Your task to perform on an android device: turn on location history Image 0: 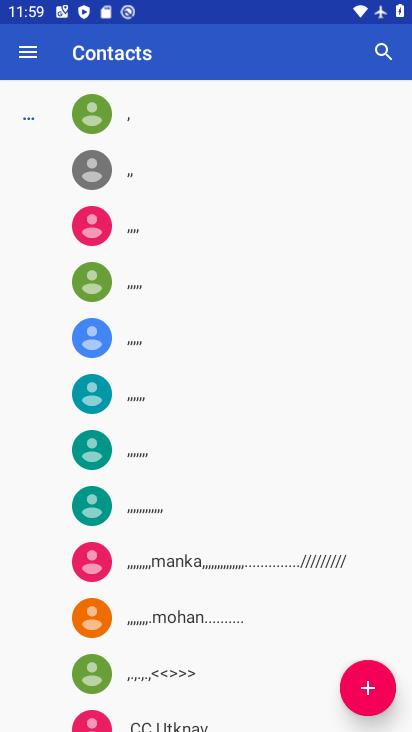
Step 0: press back button
Your task to perform on an android device: turn on location history Image 1: 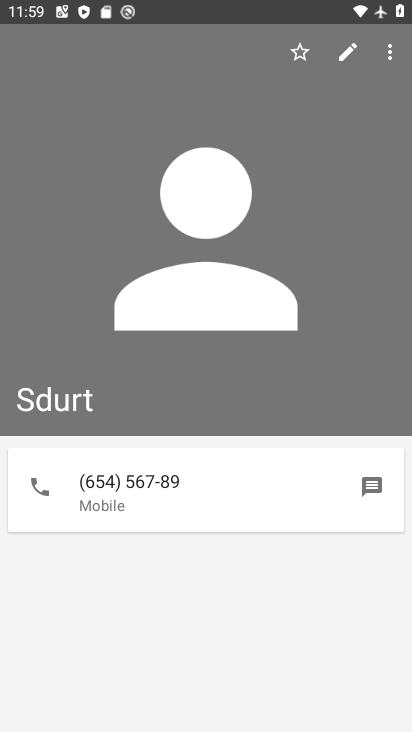
Step 1: press back button
Your task to perform on an android device: turn on location history Image 2: 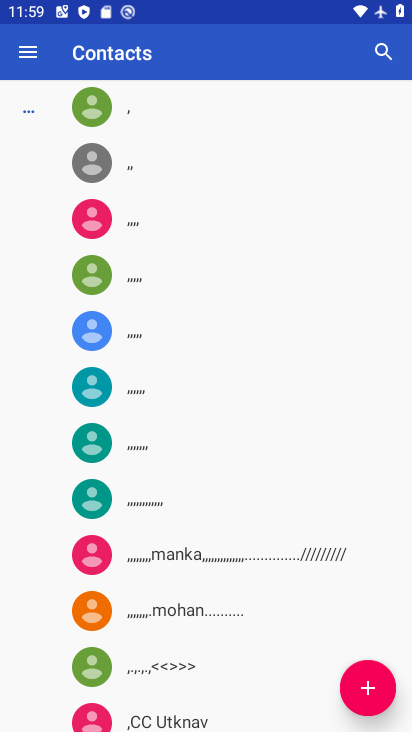
Step 2: press back button
Your task to perform on an android device: turn on location history Image 3: 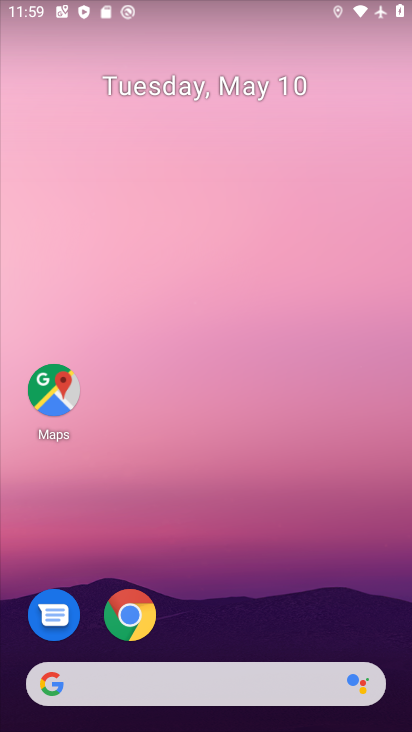
Step 3: drag from (299, 573) to (302, 63)
Your task to perform on an android device: turn on location history Image 4: 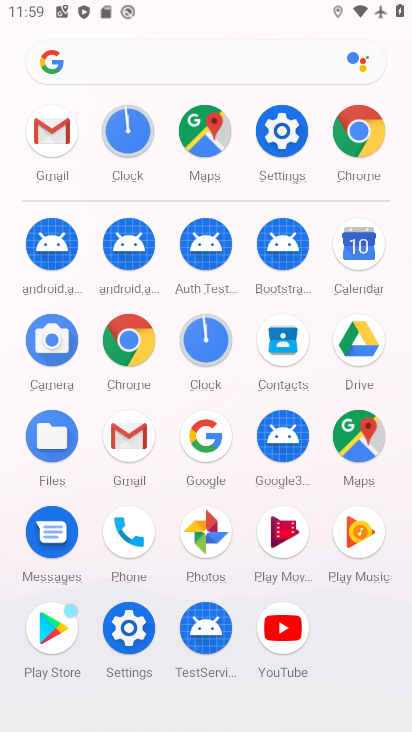
Step 4: drag from (11, 561) to (9, 245)
Your task to perform on an android device: turn on location history Image 5: 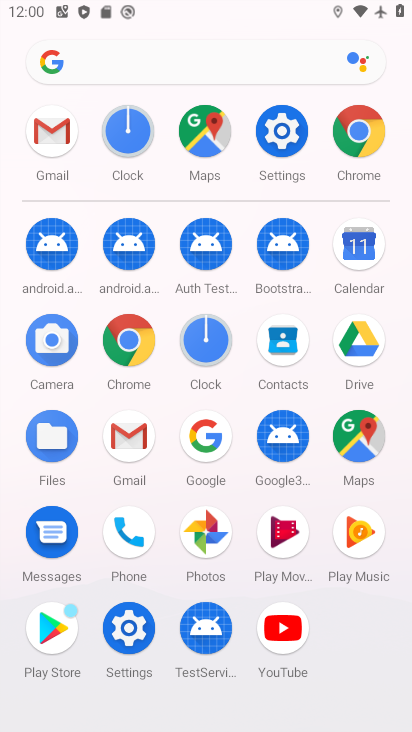
Step 5: click (129, 625)
Your task to perform on an android device: turn on location history Image 6: 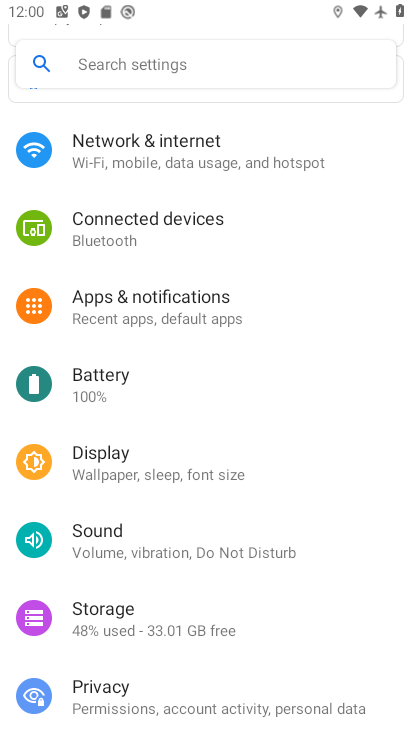
Step 6: drag from (295, 575) to (306, 151)
Your task to perform on an android device: turn on location history Image 7: 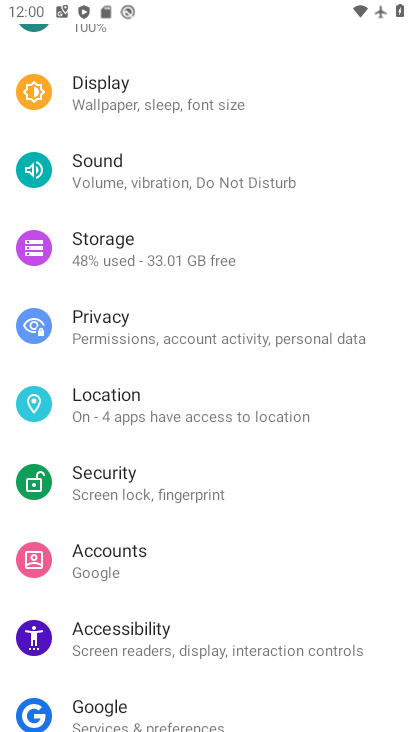
Step 7: drag from (261, 561) to (292, 217)
Your task to perform on an android device: turn on location history Image 8: 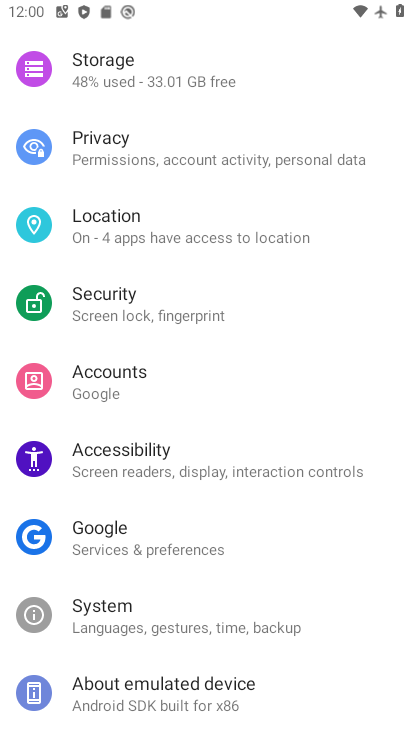
Step 8: drag from (261, 527) to (295, 115)
Your task to perform on an android device: turn on location history Image 9: 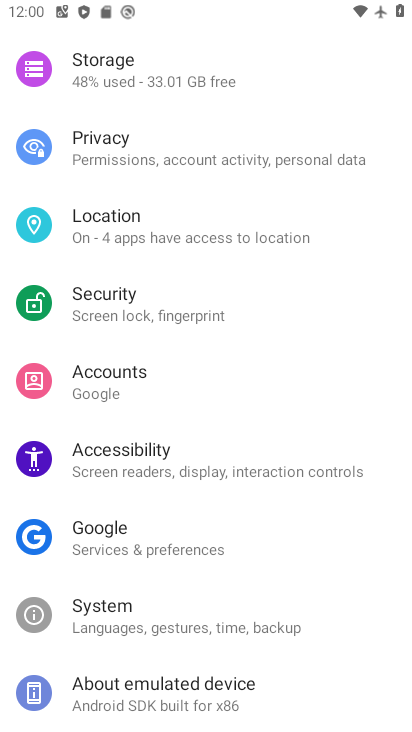
Step 9: drag from (256, 196) to (264, 526)
Your task to perform on an android device: turn on location history Image 10: 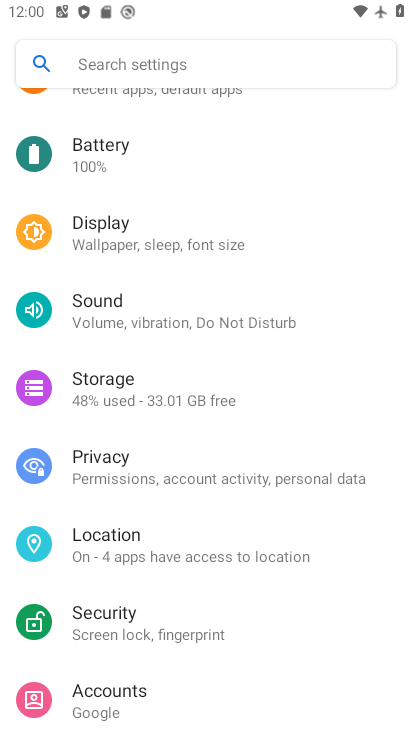
Step 10: drag from (225, 179) to (230, 560)
Your task to perform on an android device: turn on location history Image 11: 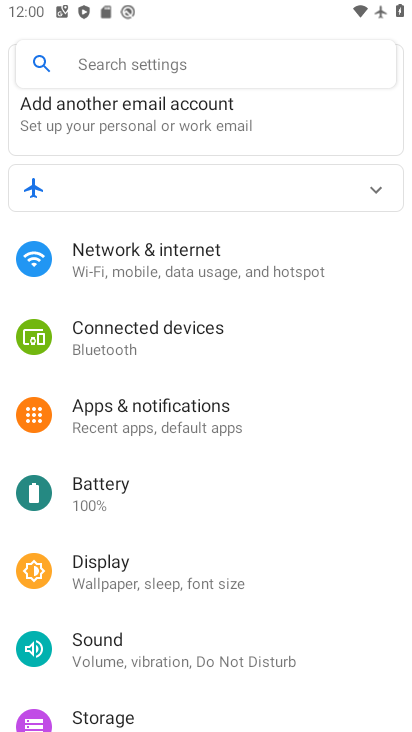
Step 11: drag from (279, 482) to (298, 166)
Your task to perform on an android device: turn on location history Image 12: 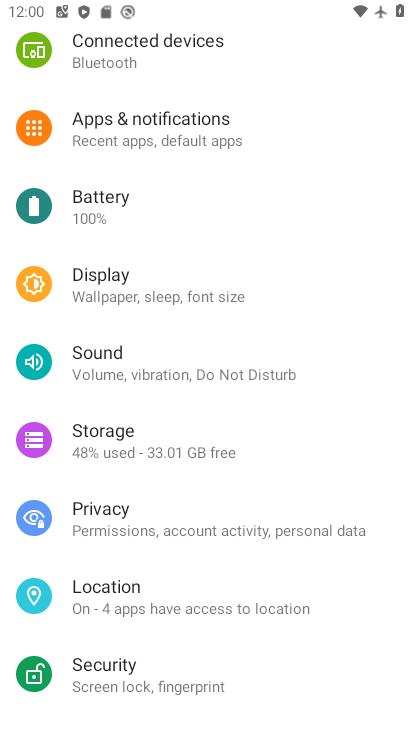
Step 12: click (135, 601)
Your task to perform on an android device: turn on location history Image 13: 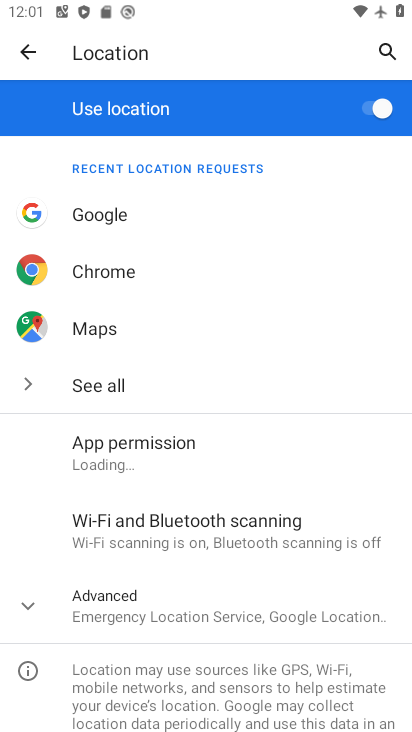
Step 13: click (109, 614)
Your task to perform on an android device: turn on location history Image 14: 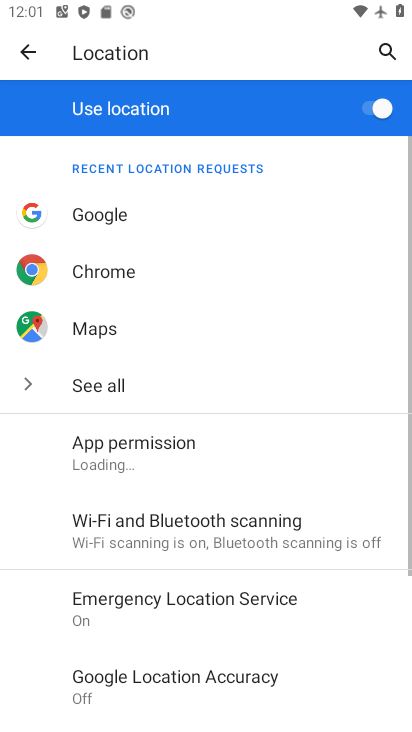
Step 14: drag from (317, 576) to (318, 188)
Your task to perform on an android device: turn on location history Image 15: 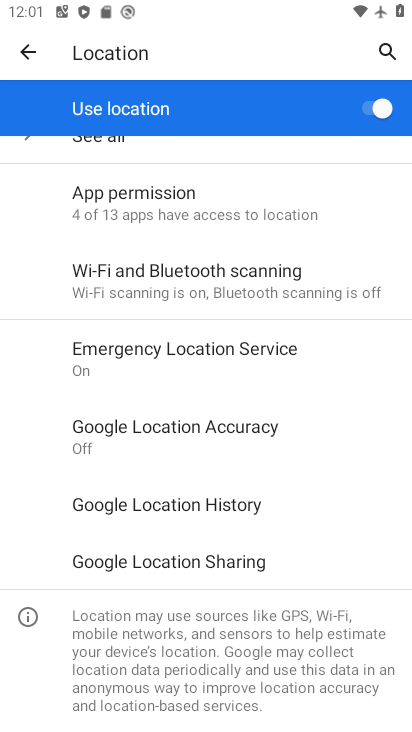
Step 15: click (244, 498)
Your task to perform on an android device: turn on location history Image 16: 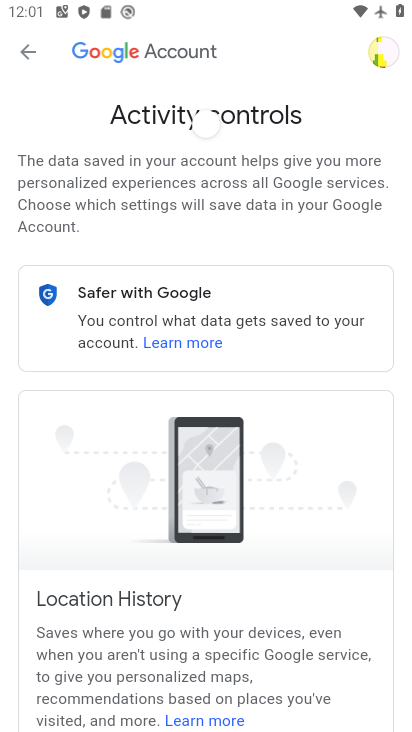
Step 16: drag from (257, 531) to (285, 121)
Your task to perform on an android device: turn on location history Image 17: 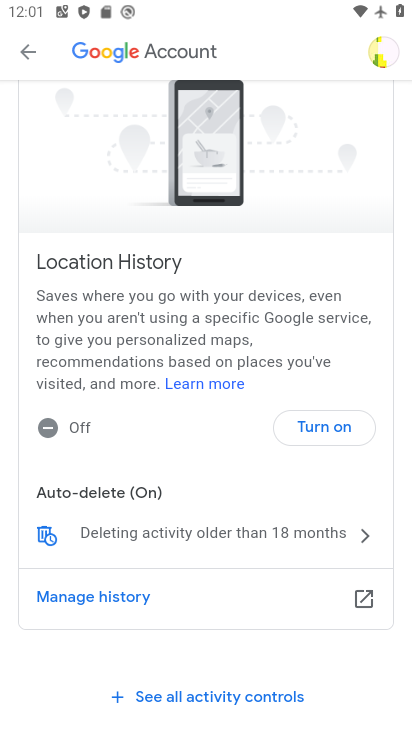
Step 17: drag from (179, 515) to (240, 152)
Your task to perform on an android device: turn on location history Image 18: 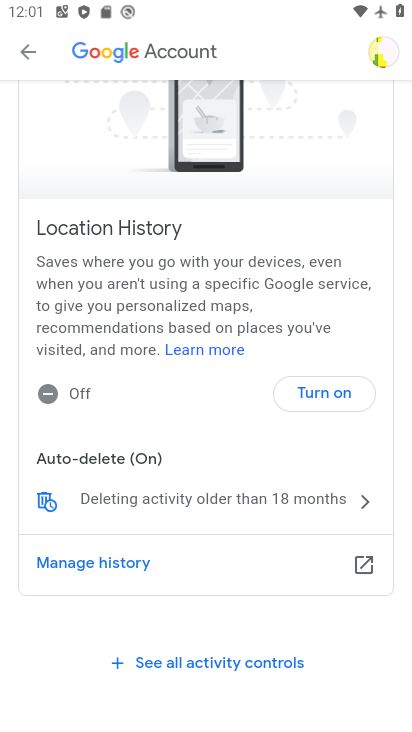
Step 18: click (348, 390)
Your task to perform on an android device: turn on location history Image 19: 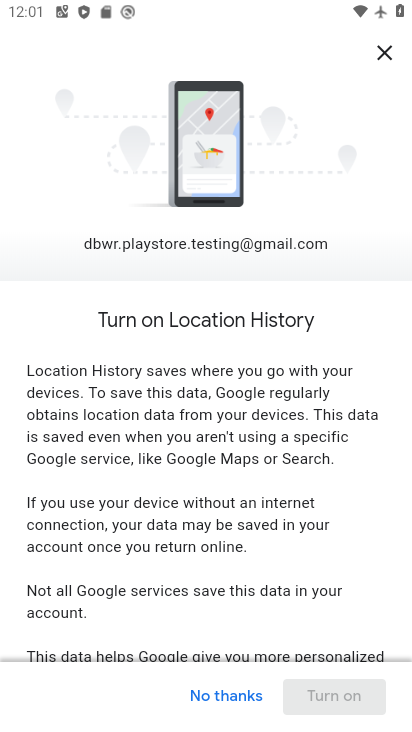
Step 19: drag from (256, 591) to (301, 44)
Your task to perform on an android device: turn on location history Image 20: 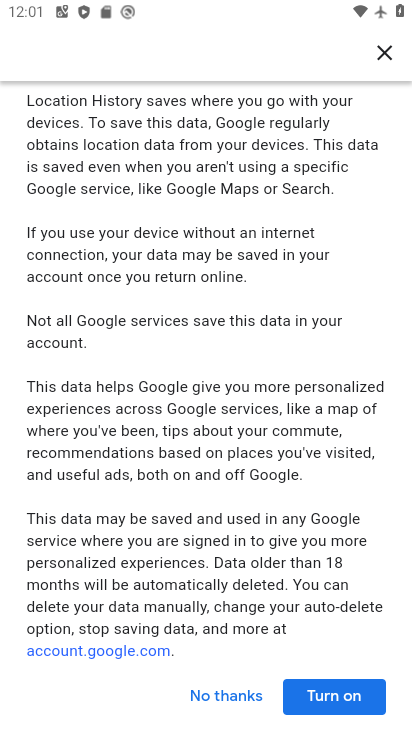
Step 20: click (316, 706)
Your task to perform on an android device: turn on location history Image 21: 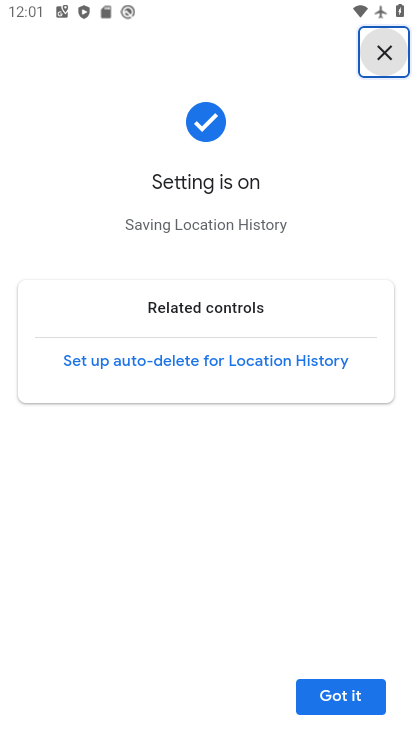
Step 21: task complete